Your task to perform on an android device: refresh tabs in the chrome app Image 0: 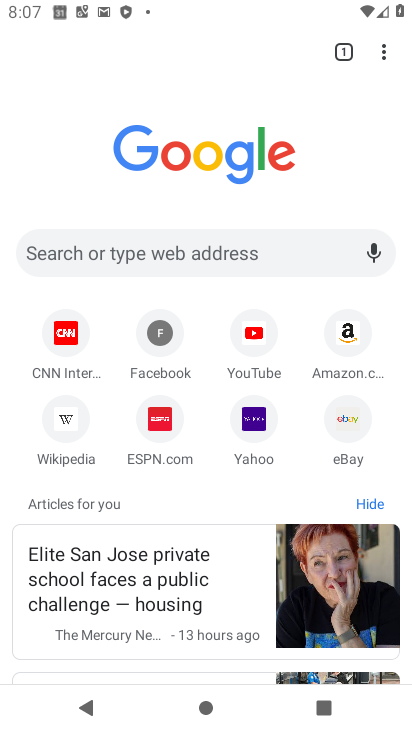
Step 0: click (332, 64)
Your task to perform on an android device: refresh tabs in the chrome app Image 1: 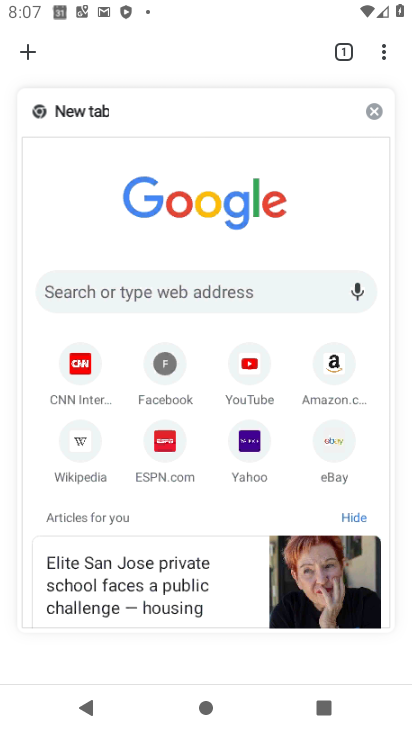
Step 1: click (18, 43)
Your task to perform on an android device: refresh tabs in the chrome app Image 2: 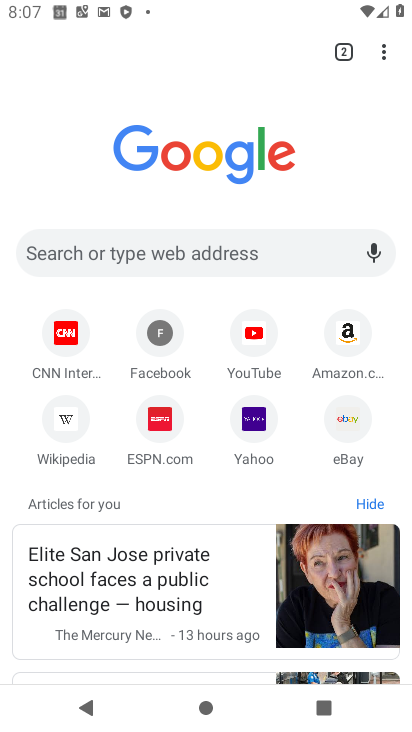
Step 2: task complete